Your task to perform on an android device: Show me productivity apps on the Play Store Image 0: 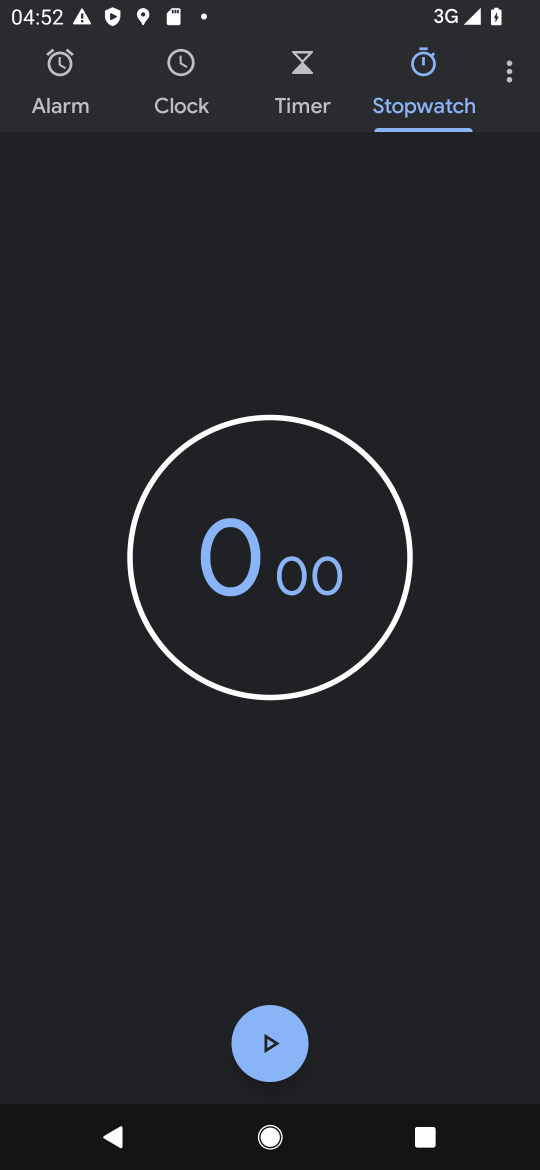
Step 0: press home button
Your task to perform on an android device: Show me productivity apps on the Play Store Image 1: 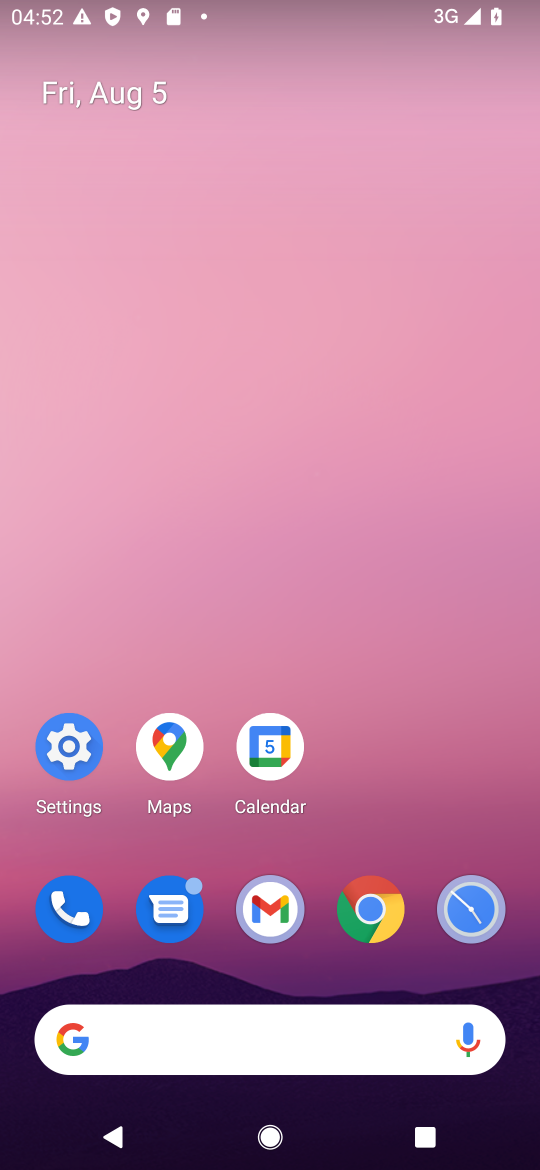
Step 1: drag from (356, 773) to (310, 151)
Your task to perform on an android device: Show me productivity apps on the Play Store Image 2: 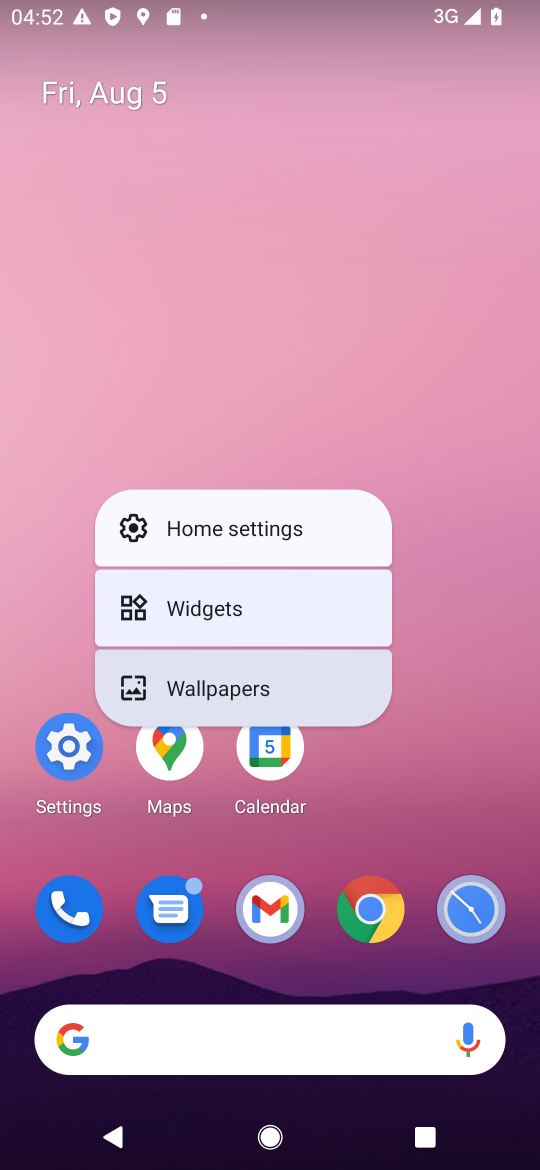
Step 2: click (352, 318)
Your task to perform on an android device: Show me productivity apps on the Play Store Image 3: 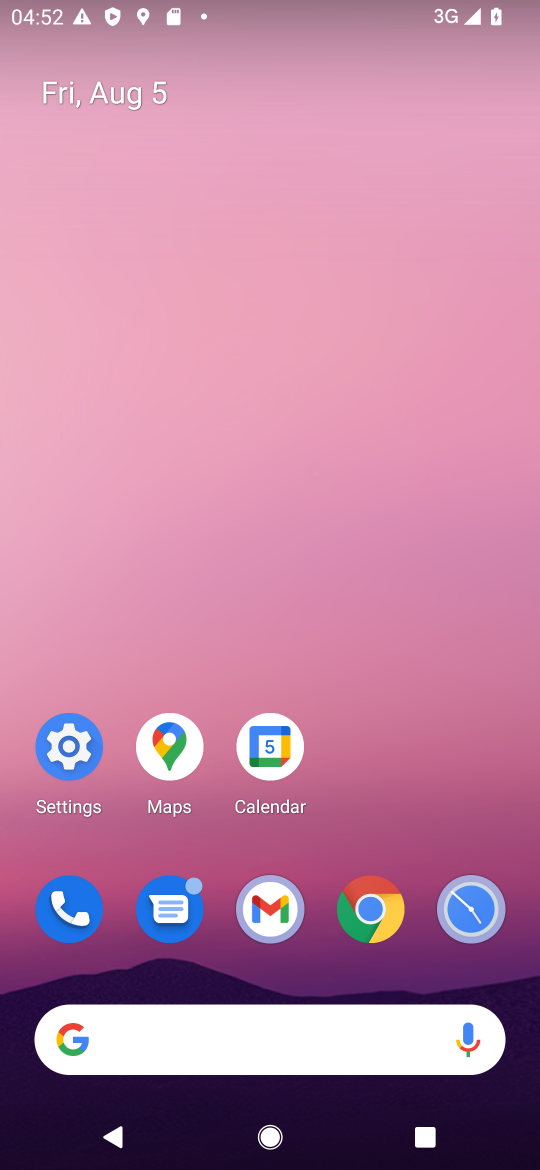
Step 3: drag from (428, 772) to (254, 24)
Your task to perform on an android device: Show me productivity apps on the Play Store Image 4: 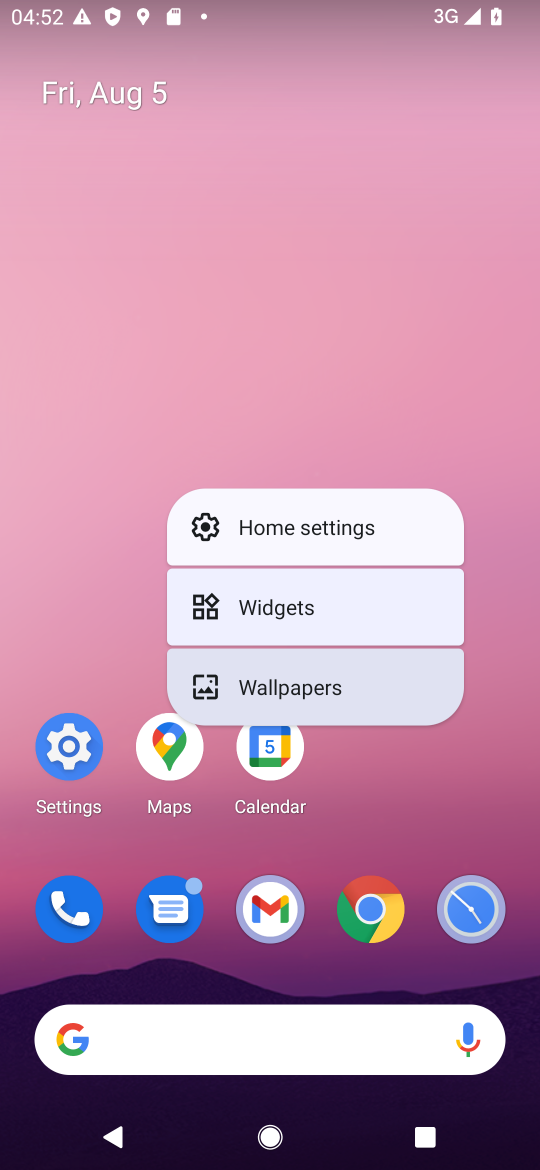
Step 4: click (323, 314)
Your task to perform on an android device: Show me productivity apps on the Play Store Image 5: 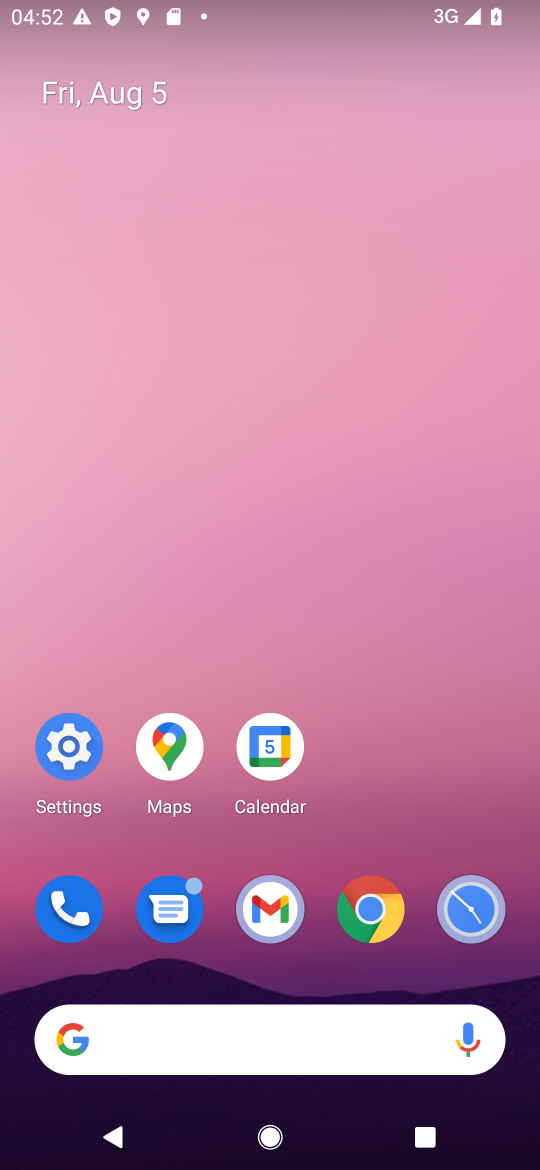
Step 5: drag from (404, 816) to (248, 230)
Your task to perform on an android device: Show me productivity apps on the Play Store Image 6: 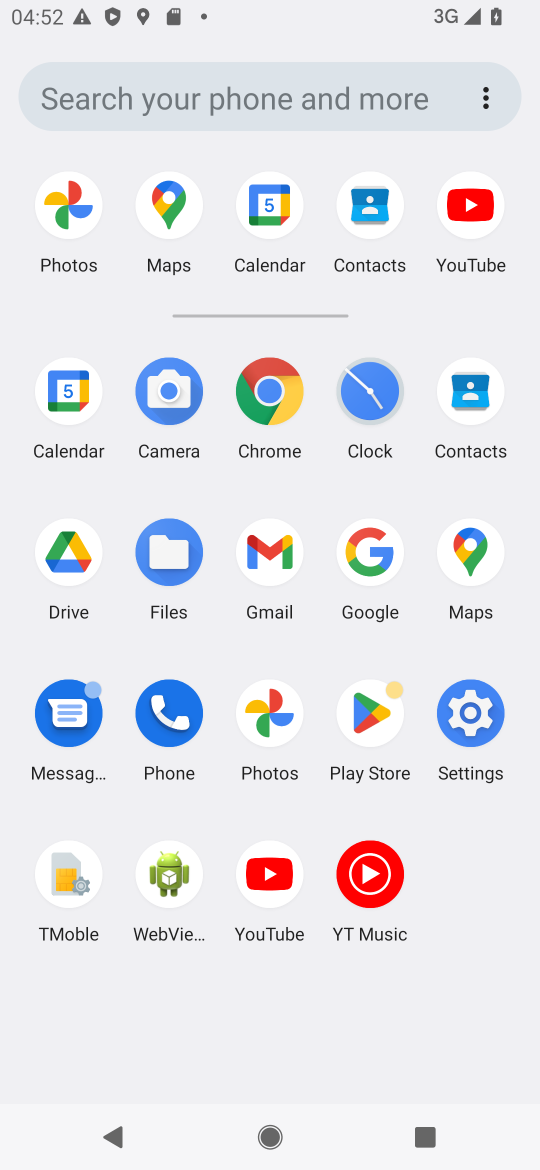
Step 6: click (367, 708)
Your task to perform on an android device: Show me productivity apps on the Play Store Image 7: 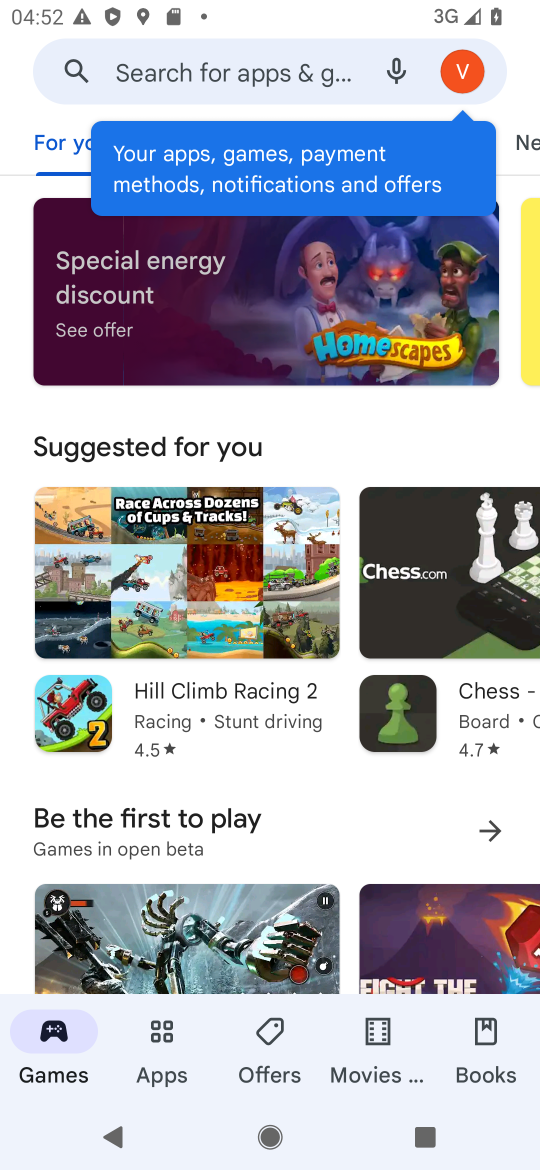
Step 7: click (162, 1044)
Your task to perform on an android device: Show me productivity apps on the Play Store Image 8: 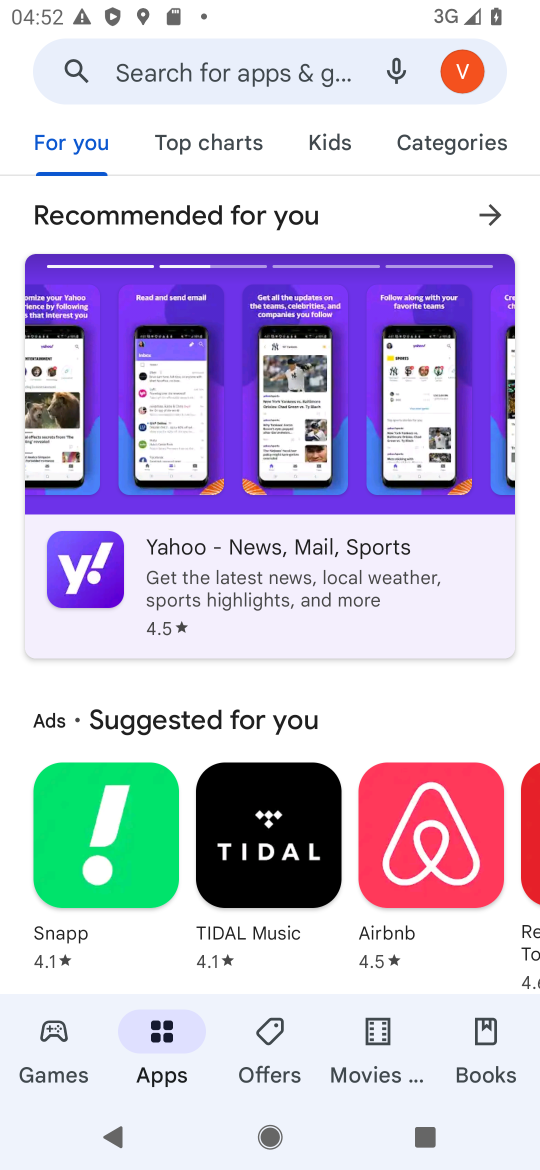
Step 8: task complete